Your task to perform on an android device: Show me the alarms in the clock app Image 0: 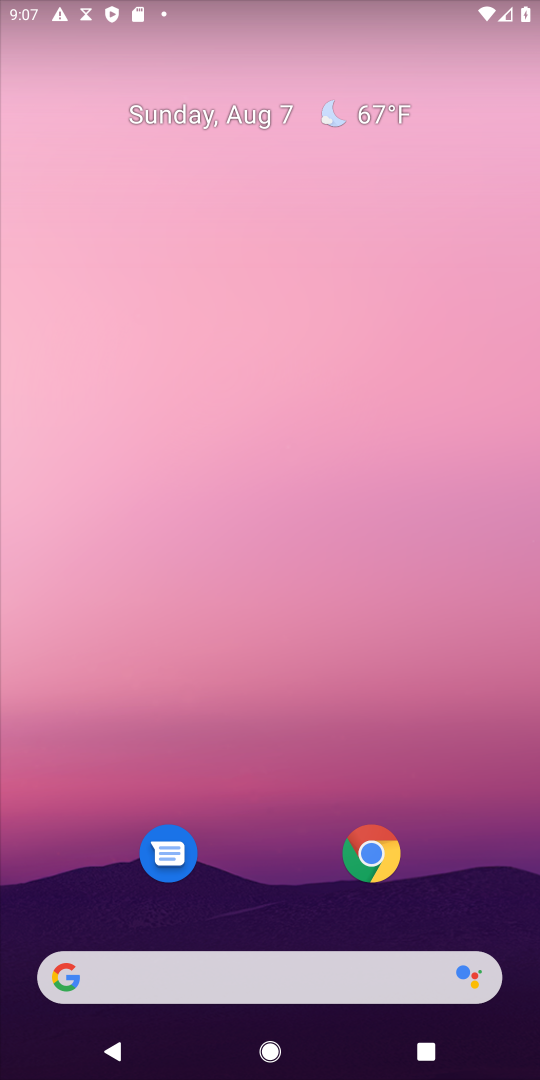
Step 0: drag from (233, 858) to (233, 305)
Your task to perform on an android device: Show me the alarms in the clock app Image 1: 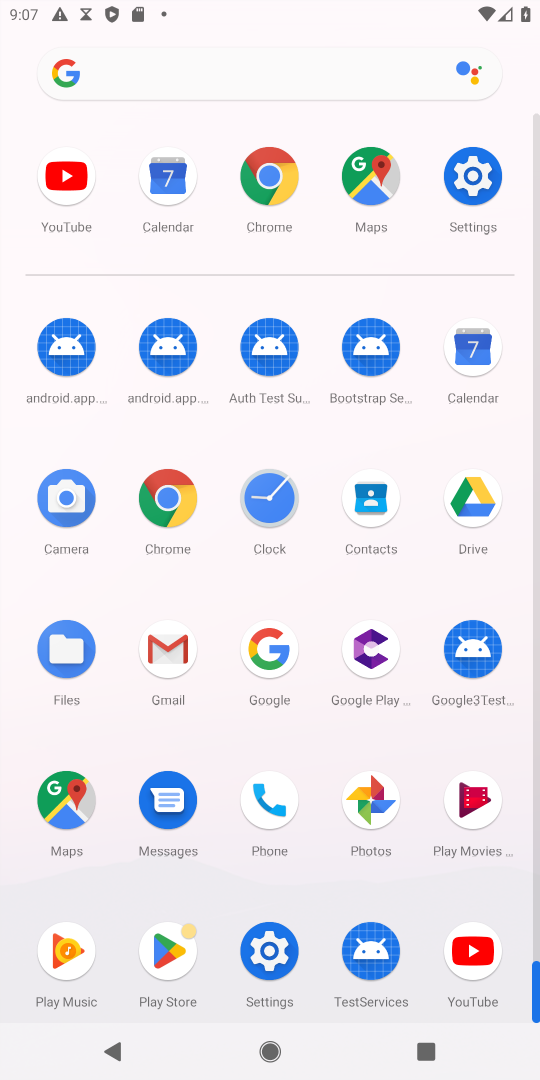
Step 1: click (258, 499)
Your task to perform on an android device: Show me the alarms in the clock app Image 2: 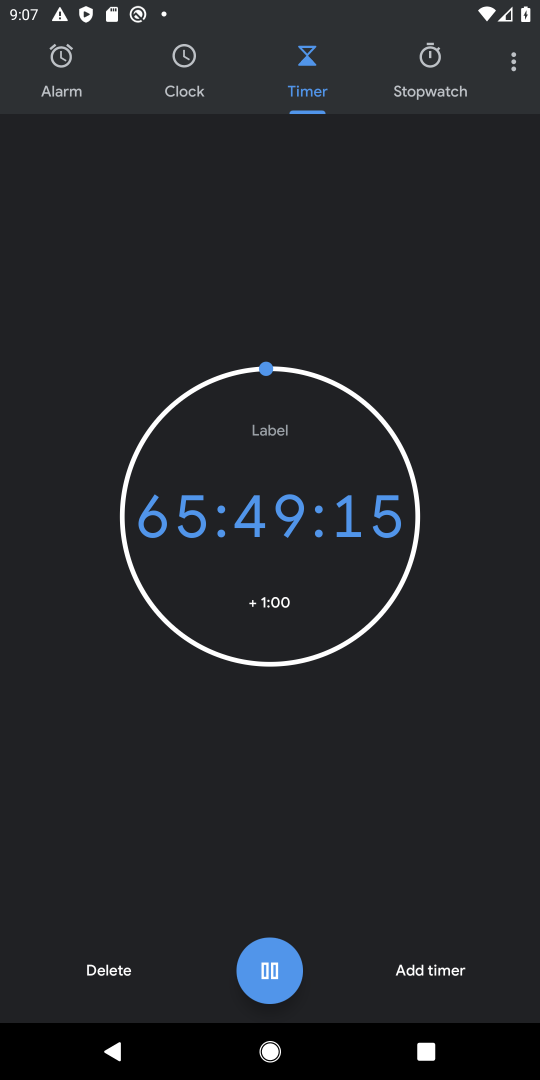
Step 2: click (71, 71)
Your task to perform on an android device: Show me the alarms in the clock app Image 3: 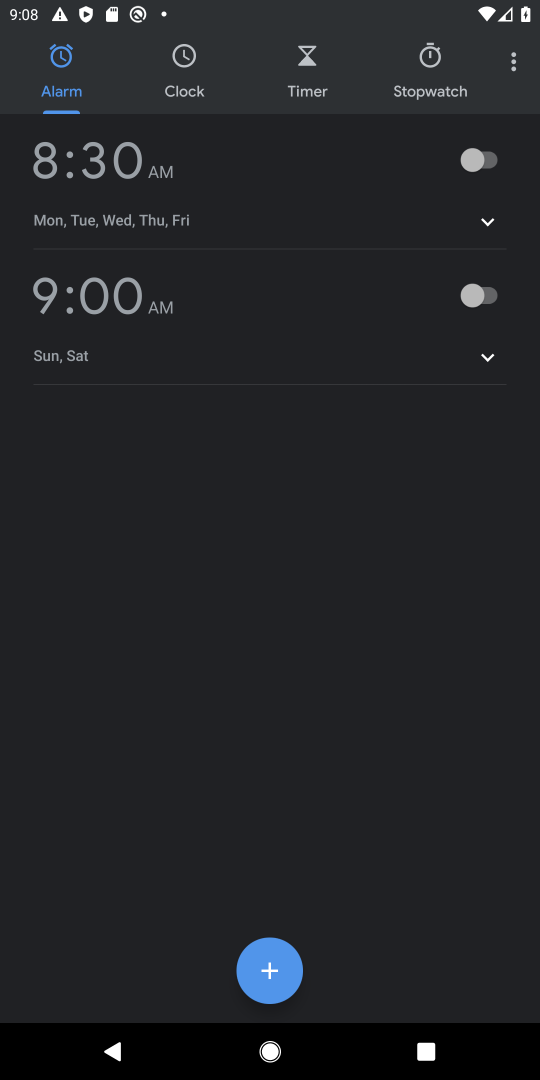
Step 3: task complete